Your task to perform on an android device: What's the weather going to be tomorrow? Image 0: 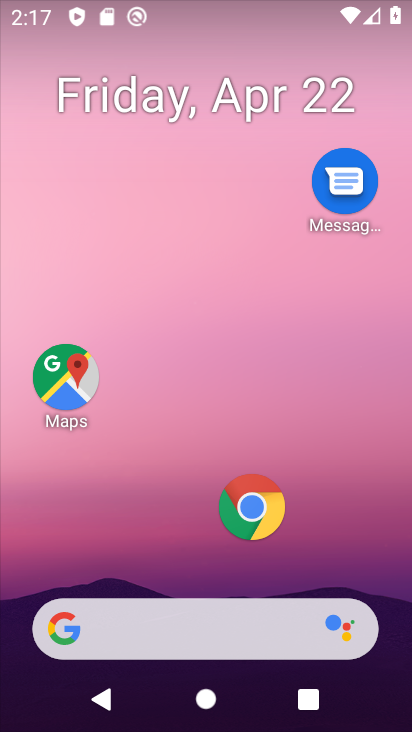
Step 0: drag from (159, 507) to (209, 5)
Your task to perform on an android device: What's the weather going to be tomorrow? Image 1: 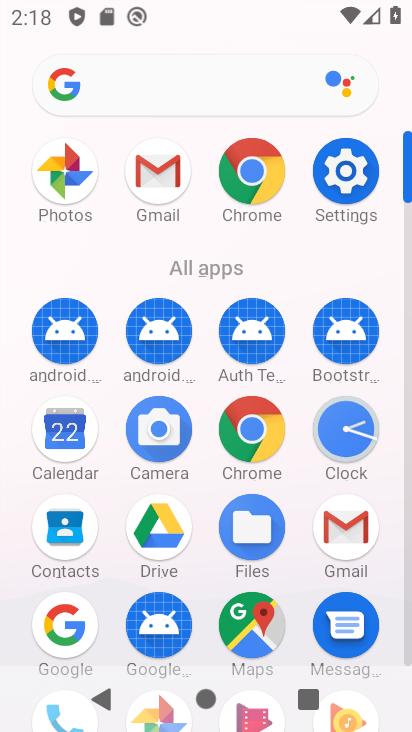
Step 1: click (183, 105)
Your task to perform on an android device: What's the weather going to be tomorrow? Image 2: 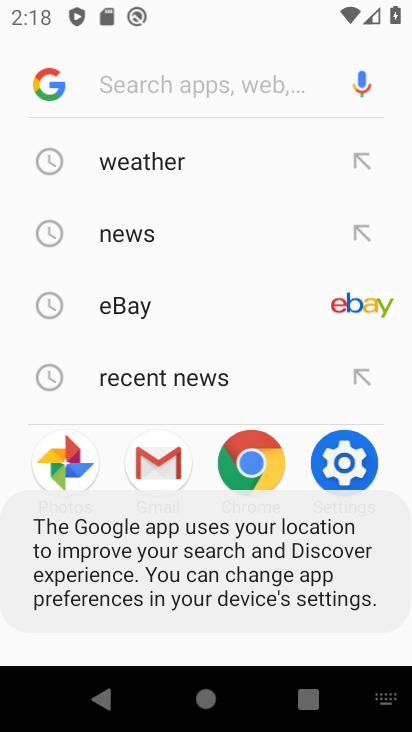
Step 2: click (118, 170)
Your task to perform on an android device: What's the weather going to be tomorrow? Image 3: 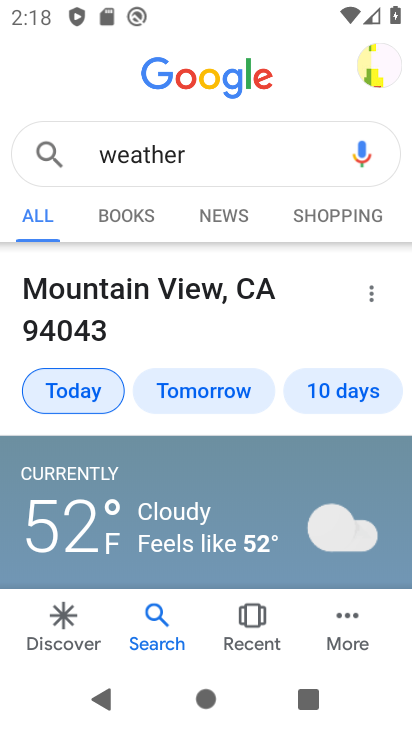
Step 3: click (200, 394)
Your task to perform on an android device: What's the weather going to be tomorrow? Image 4: 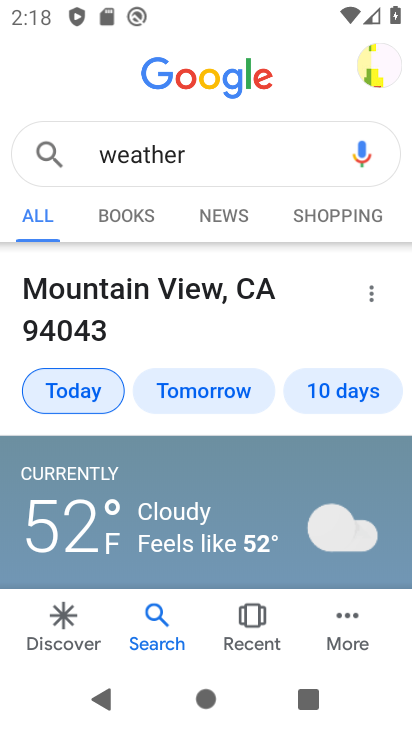
Step 4: drag from (199, 471) to (220, 236)
Your task to perform on an android device: What's the weather going to be tomorrow? Image 5: 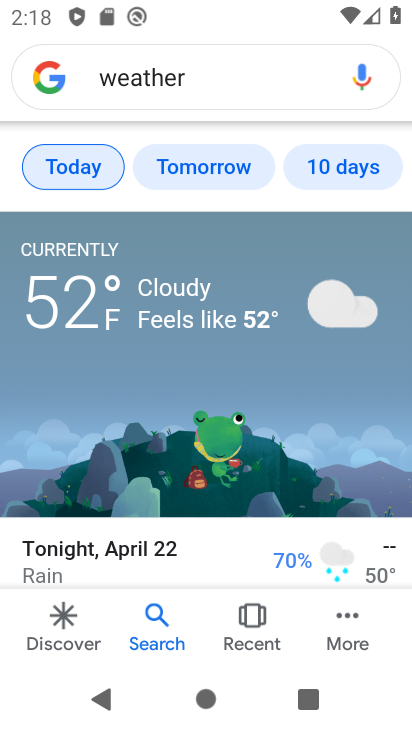
Step 5: click (188, 166)
Your task to perform on an android device: What's the weather going to be tomorrow? Image 6: 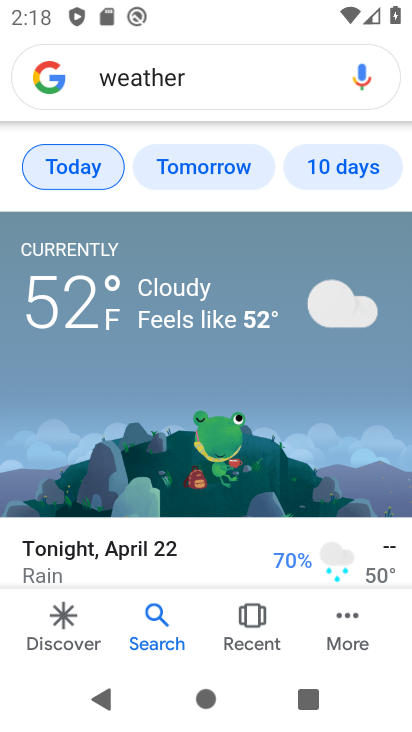
Step 6: click (188, 166)
Your task to perform on an android device: What's the weather going to be tomorrow? Image 7: 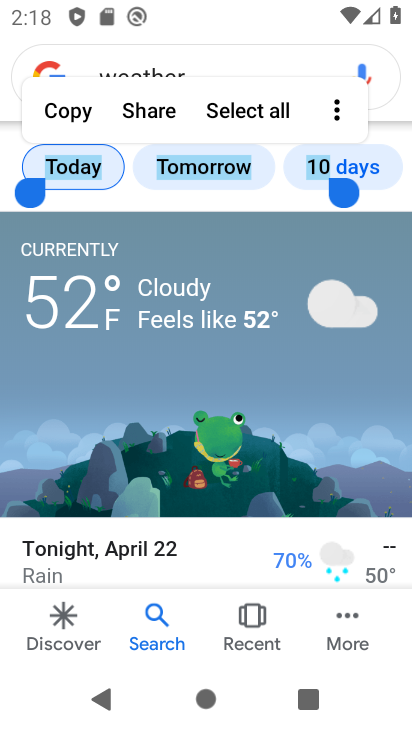
Step 7: click (199, 173)
Your task to perform on an android device: What's the weather going to be tomorrow? Image 8: 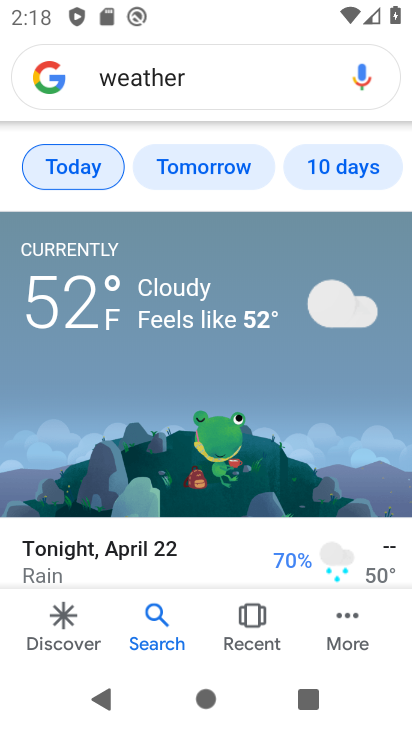
Step 8: click (194, 169)
Your task to perform on an android device: What's the weather going to be tomorrow? Image 9: 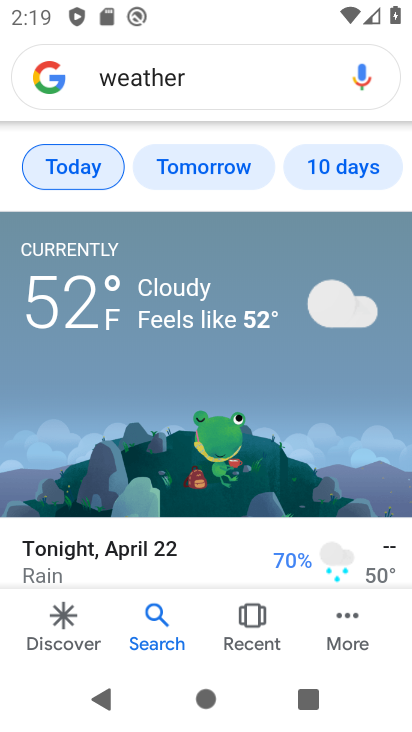
Step 9: click (204, 173)
Your task to perform on an android device: What's the weather going to be tomorrow? Image 10: 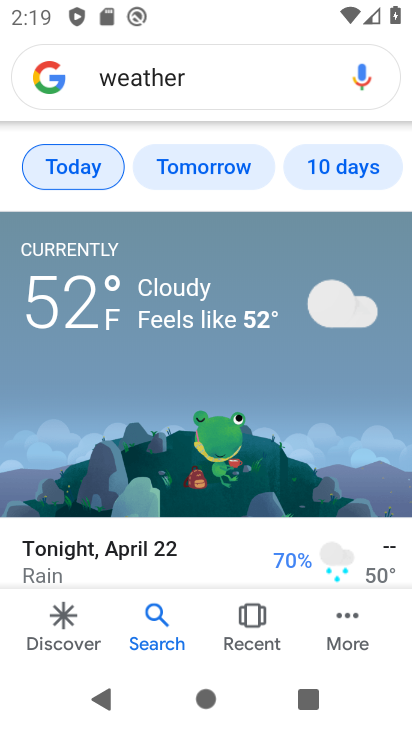
Step 10: click (194, 171)
Your task to perform on an android device: What's the weather going to be tomorrow? Image 11: 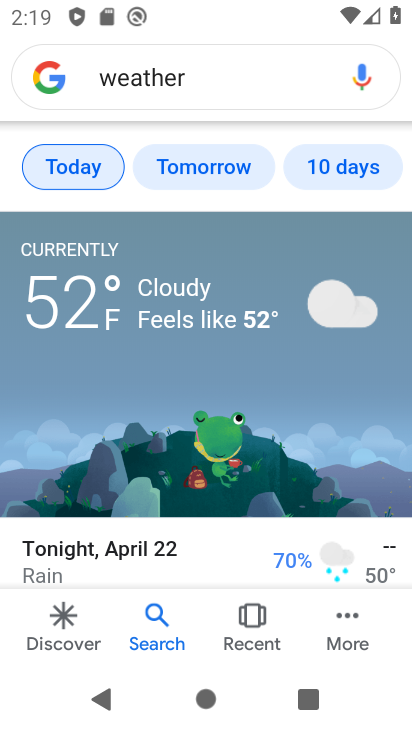
Step 11: task complete